Your task to perform on an android device: Open privacy settings Image 0: 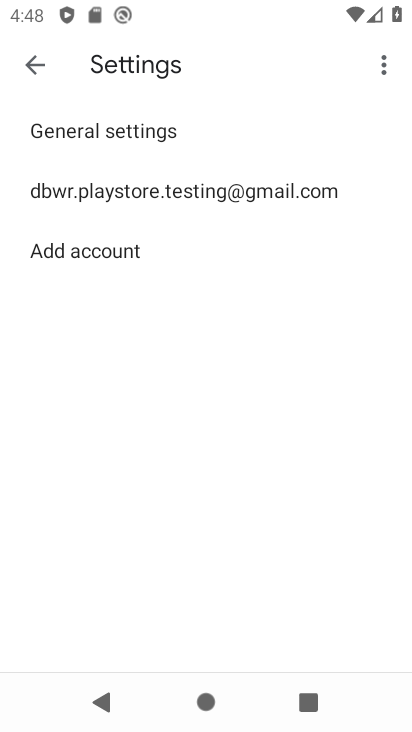
Step 0: press home button
Your task to perform on an android device: Open privacy settings Image 1: 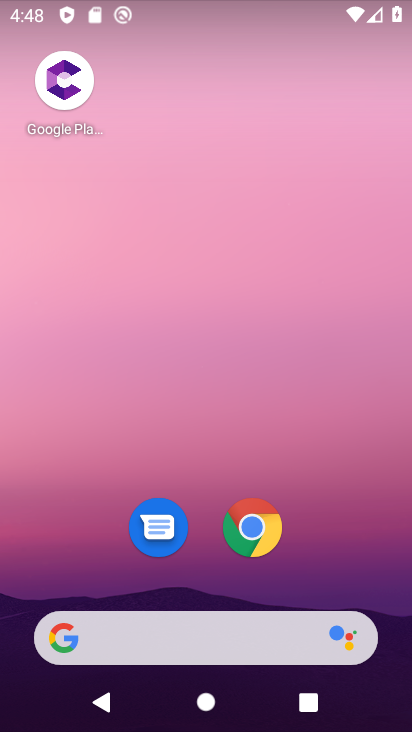
Step 1: drag from (374, 308) to (364, 101)
Your task to perform on an android device: Open privacy settings Image 2: 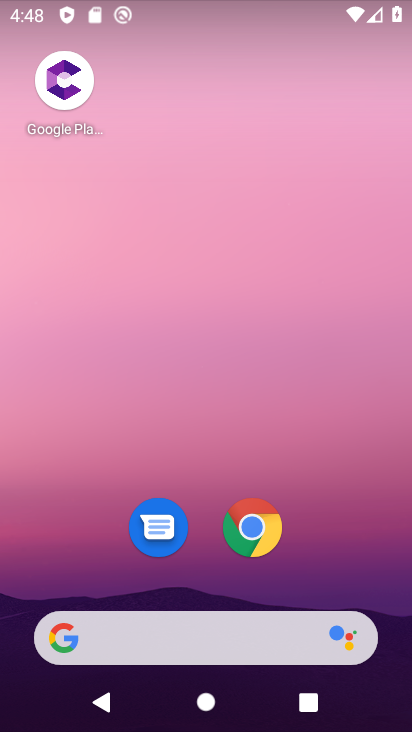
Step 2: drag from (373, 495) to (337, 136)
Your task to perform on an android device: Open privacy settings Image 3: 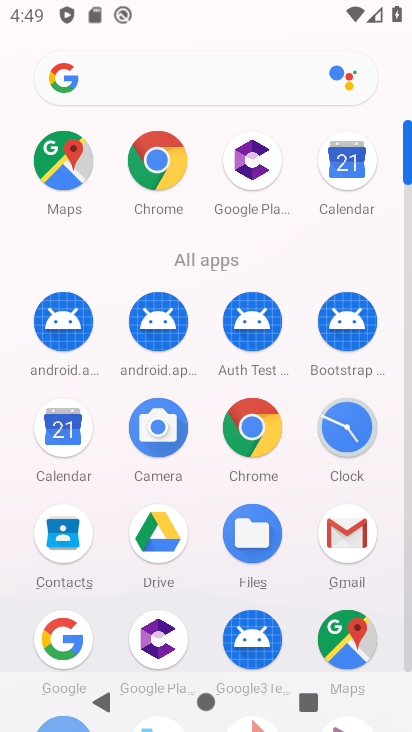
Step 3: click (253, 418)
Your task to perform on an android device: Open privacy settings Image 4: 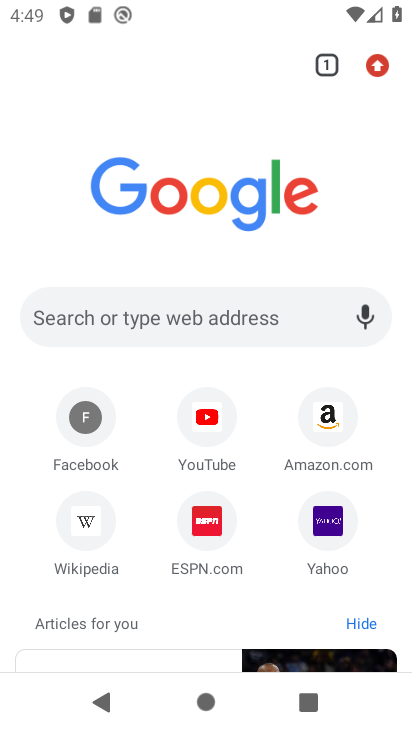
Step 4: click (376, 58)
Your task to perform on an android device: Open privacy settings Image 5: 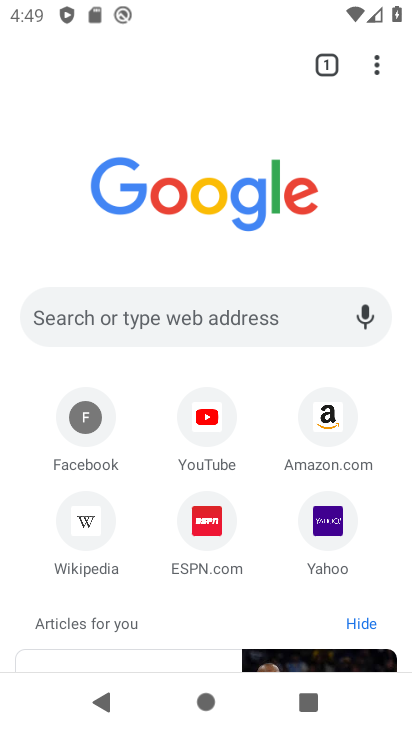
Step 5: click (374, 65)
Your task to perform on an android device: Open privacy settings Image 6: 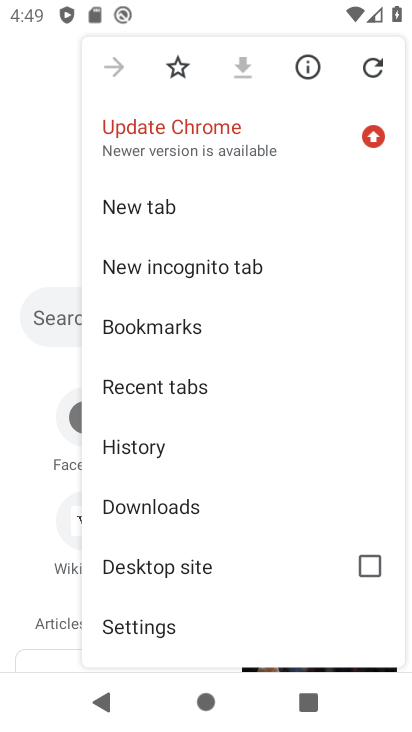
Step 6: click (134, 615)
Your task to perform on an android device: Open privacy settings Image 7: 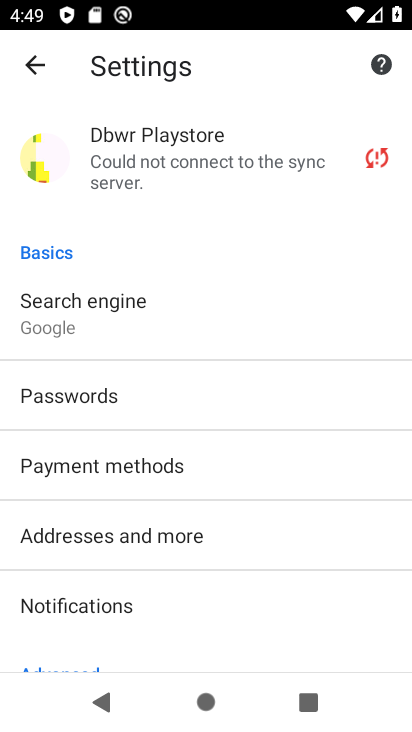
Step 7: drag from (251, 534) to (211, 301)
Your task to perform on an android device: Open privacy settings Image 8: 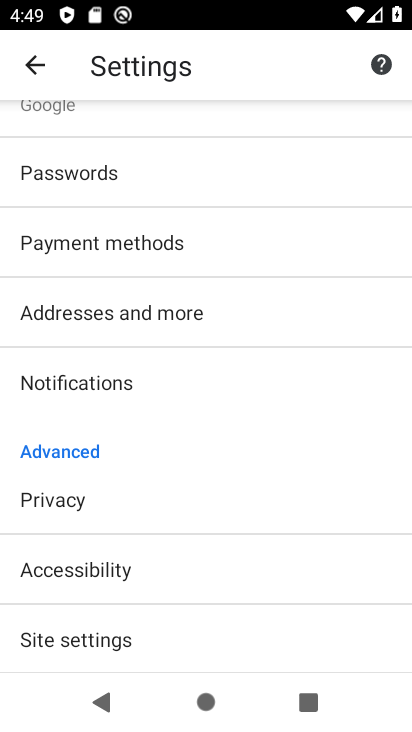
Step 8: click (60, 500)
Your task to perform on an android device: Open privacy settings Image 9: 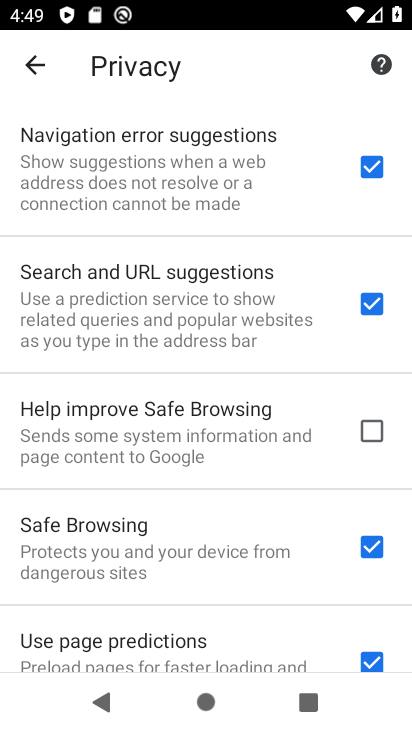
Step 9: task complete